Your task to perform on an android device: open the mobile data screen to see how much data has been used Image 0: 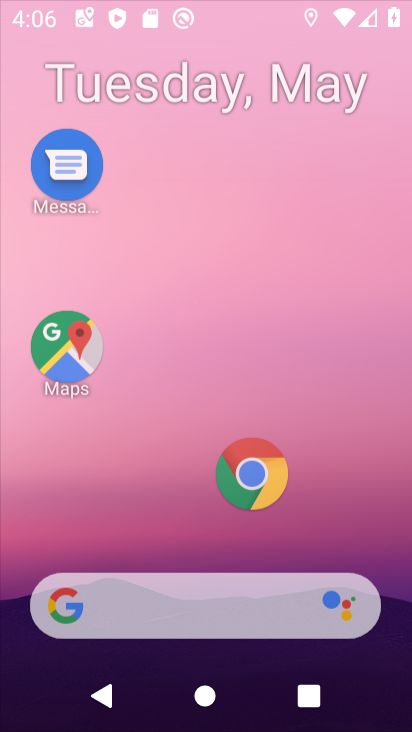
Step 0: click (290, 2)
Your task to perform on an android device: open the mobile data screen to see how much data has been used Image 1: 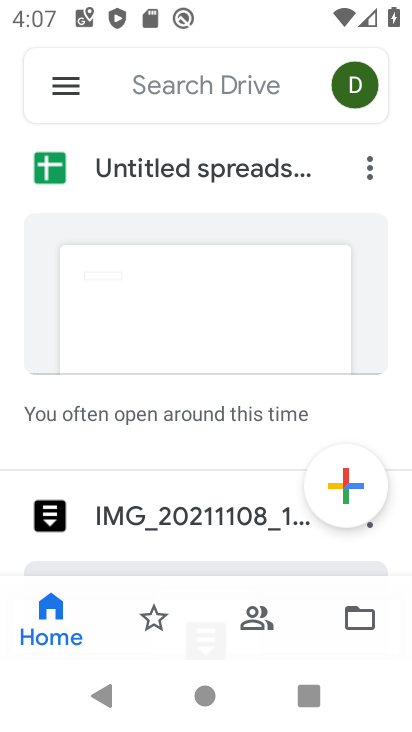
Step 1: press home button
Your task to perform on an android device: open the mobile data screen to see how much data has been used Image 2: 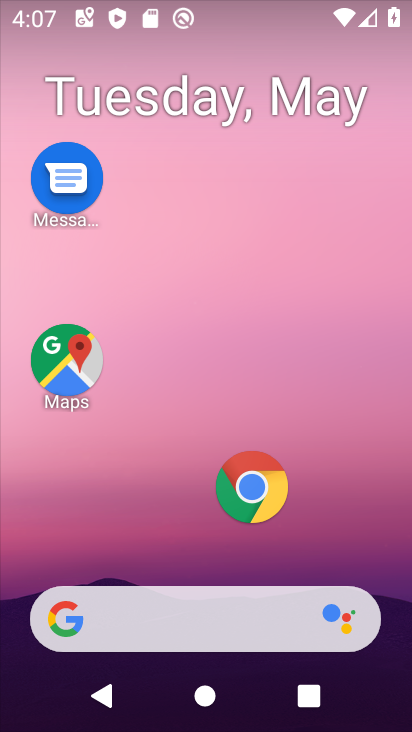
Step 2: click (313, 49)
Your task to perform on an android device: open the mobile data screen to see how much data has been used Image 3: 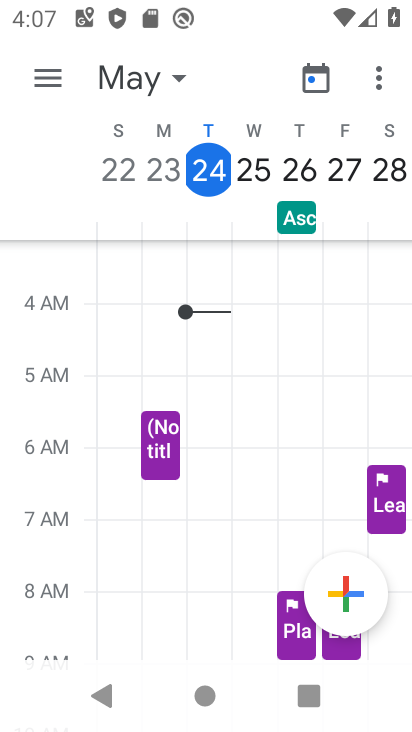
Step 3: press home button
Your task to perform on an android device: open the mobile data screen to see how much data has been used Image 4: 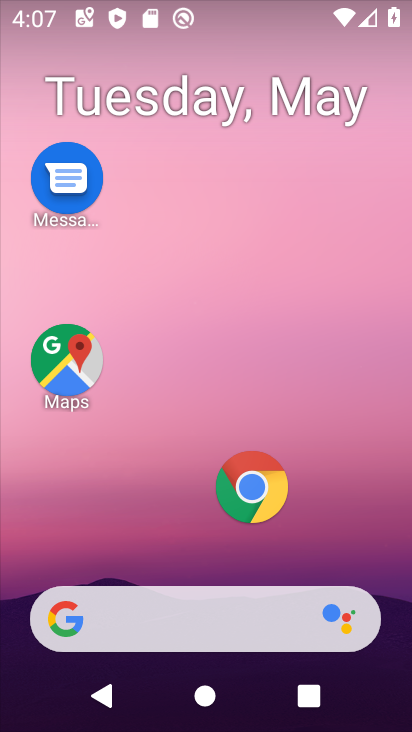
Step 4: drag from (190, 535) to (315, 4)
Your task to perform on an android device: open the mobile data screen to see how much data has been used Image 5: 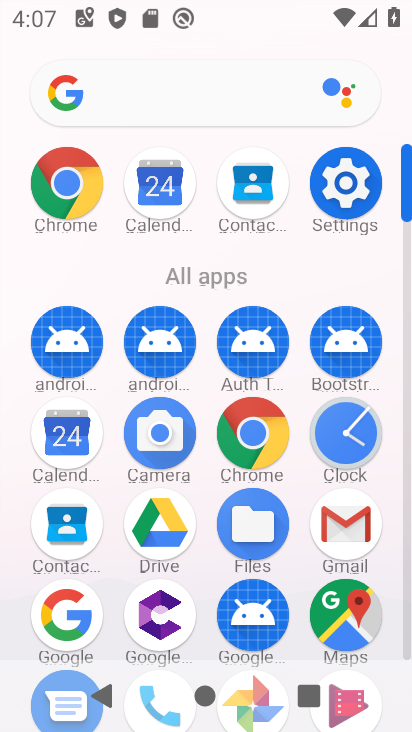
Step 5: click (348, 186)
Your task to perform on an android device: open the mobile data screen to see how much data has been used Image 6: 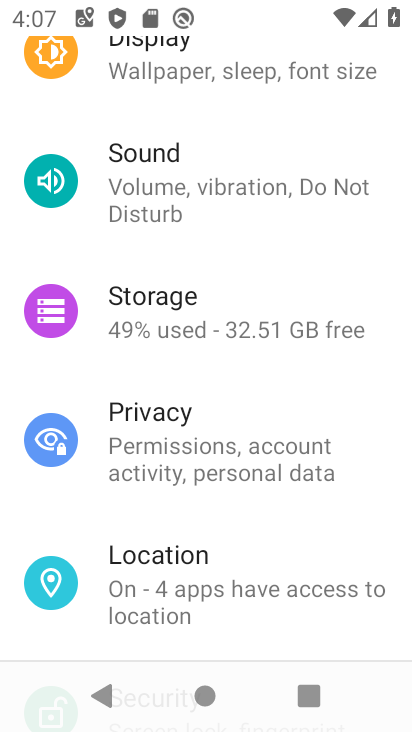
Step 6: drag from (240, 172) to (218, 728)
Your task to perform on an android device: open the mobile data screen to see how much data has been used Image 7: 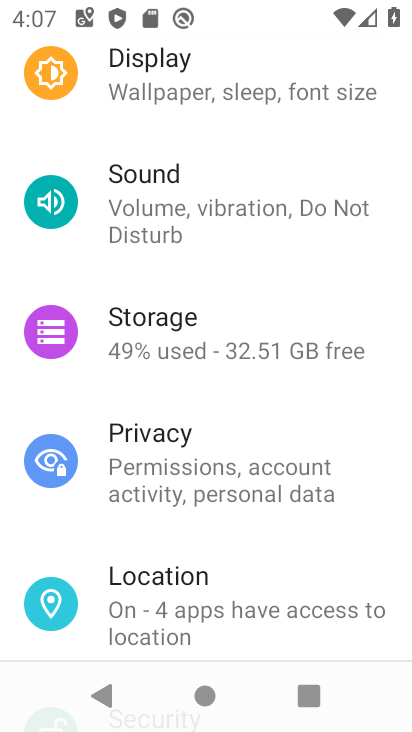
Step 7: drag from (174, 469) to (137, 600)
Your task to perform on an android device: open the mobile data screen to see how much data has been used Image 8: 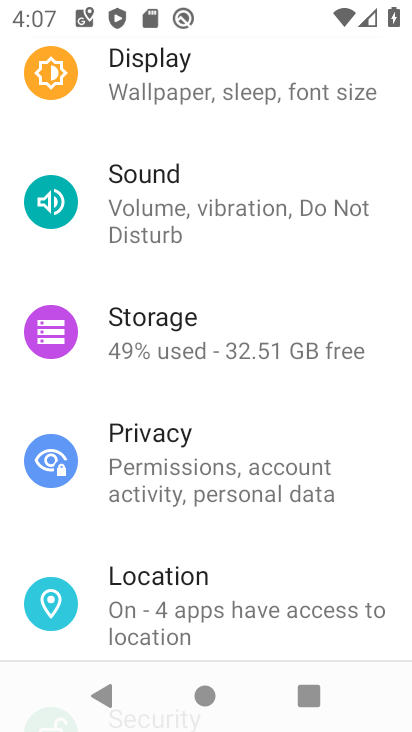
Step 8: drag from (236, 242) to (145, 703)
Your task to perform on an android device: open the mobile data screen to see how much data has been used Image 9: 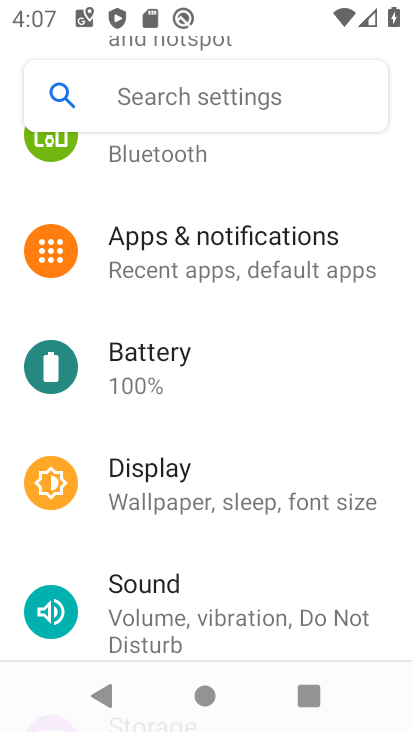
Step 9: drag from (169, 263) to (71, 578)
Your task to perform on an android device: open the mobile data screen to see how much data has been used Image 10: 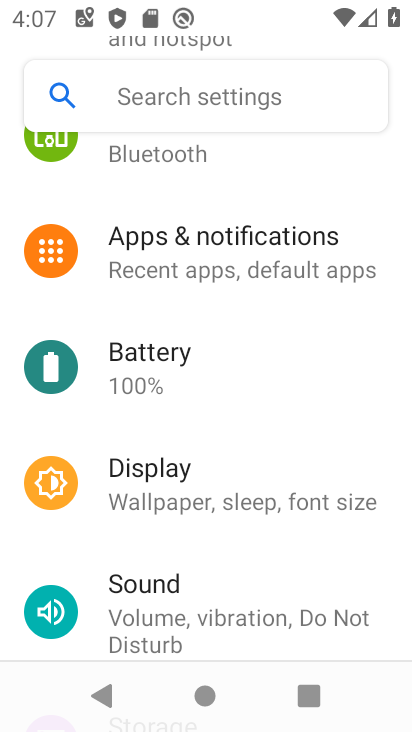
Step 10: drag from (274, 353) to (144, 716)
Your task to perform on an android device: open the mobile data screen to see how much data has been used Image 11: 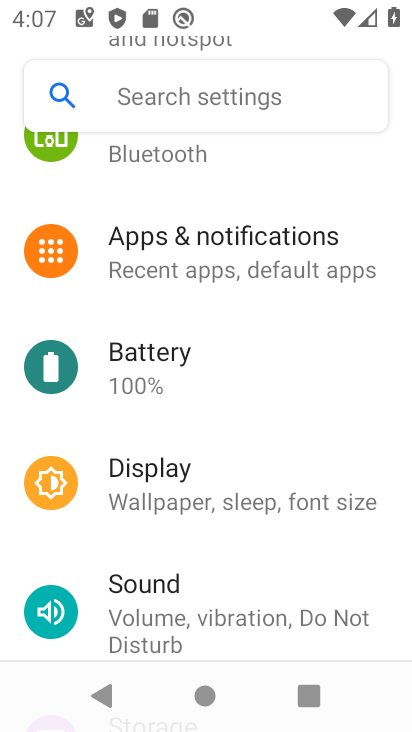
Step 11: drag from (249, 277) to (4, 457)
Your task to perform on an android device: open the mobile data screen to see how much data has been used Image 12: 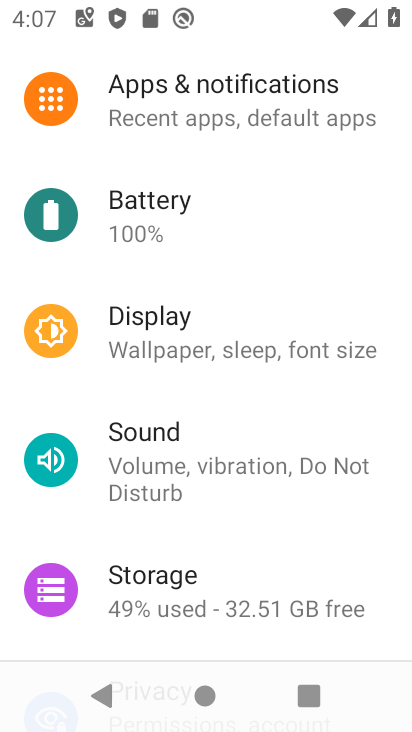
Step 12: drag from (208, 431) to (158, 721)
Your task to perform on an android device: open the mobile data screen to see how much data has been used Image 13: 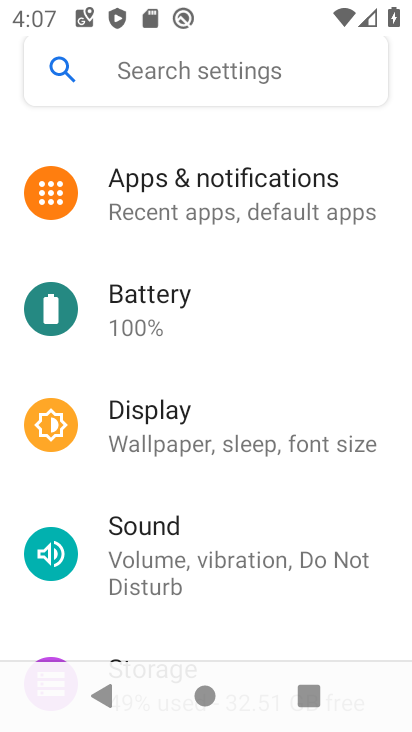
Step 13: drag from (239, 302) to (334, 726)
Your task to perform on an android device: open the mobile data screen to see how much data has been used Image 14: 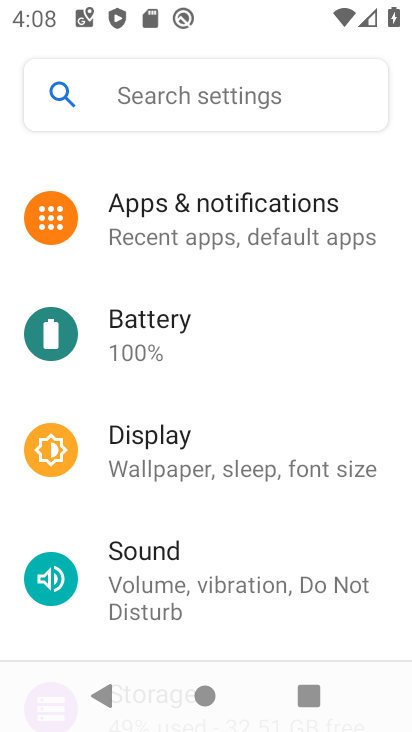
Step 14: drag from (185, 237) to (134, 596)
Your task to perform on an android device: open the mobile data screen to see how much data has been used Image 15: 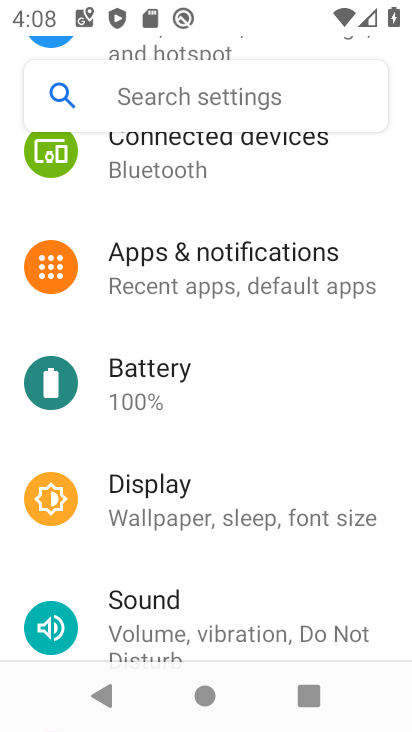
Step 15: drag from (241, 443) to (336, 729)
Your task to perform on an android device: open the mobile data screen to see how much data has been used Image 16: 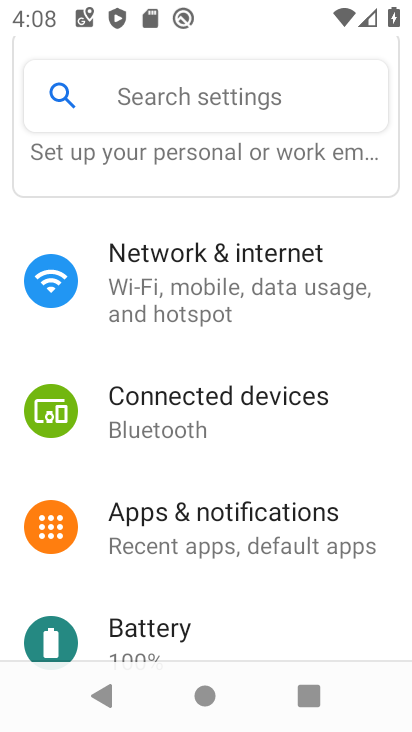
Step 16: click (178, 293)
Your task to perform on an android device: open the mobile data screen to see how much data has been used Image 17: 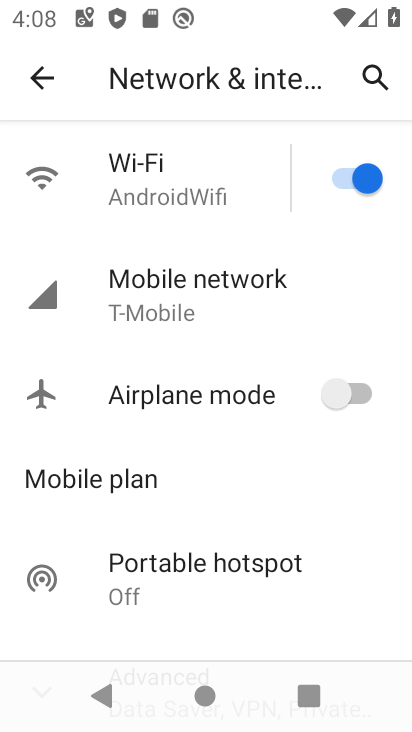
Step 17: click (179, 298)
Your task to perform on an android device: open the mobile data screen to see how much data has been used Image 18: 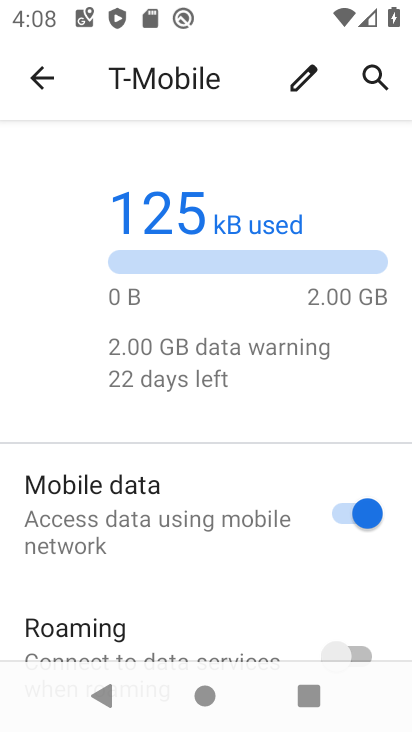
Step 18: task complete